Your task to perform on an android device: open app "Google Play Games" Image 0: 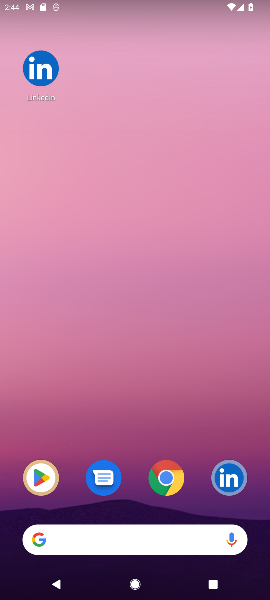
Step 0: drag from (157, 273) to (172, 41)
Your task to perform on an android device: open app "Google Play Games" Image 1: 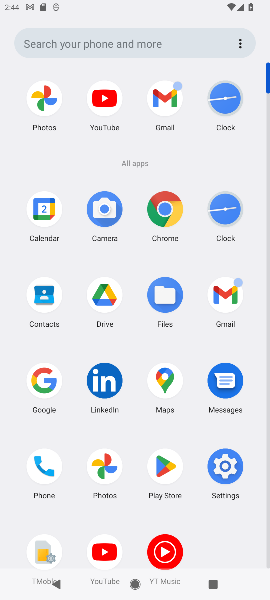
Step 1: drag from (140, 361) to (101, 64)
Your task to perform on an android device: open app "Google Play Games" Image 2: 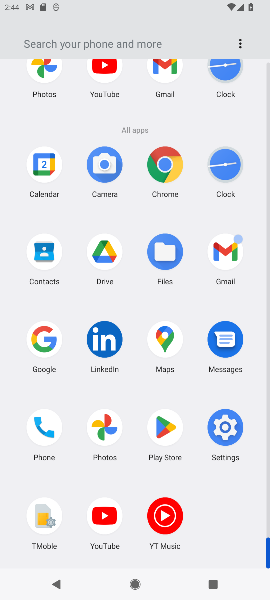
Step 2: drag from (128, 365) to (158, 8)
Your task to perform on an android device: open app "Google Play Games" Image 3: 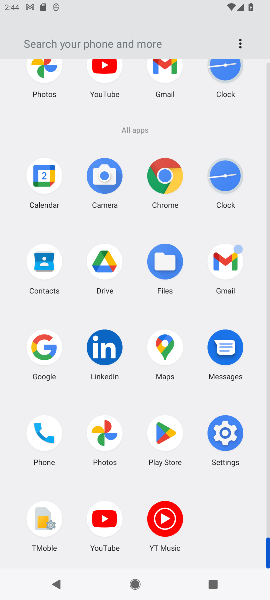
Step 3: drag from (166, 261) to (166, 44)
Your task to perform on an android device: open app "Google Play Games" Image 4: 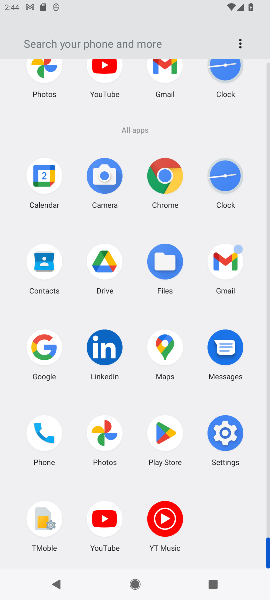
Step 4: click (163, 464)
Your task to perform on an android device: open app "Google Play Games" Image 5: 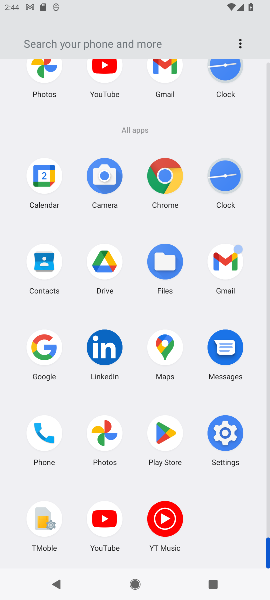
Step 5: click (168, 444)
Your task to perform on an android device: open app "Google Play Games" Image 6: 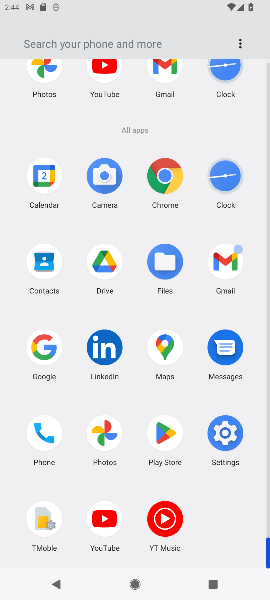
Step 6: click (168, 444)
Your task to perform on an android device: open app "Google Play Games" Image 7: 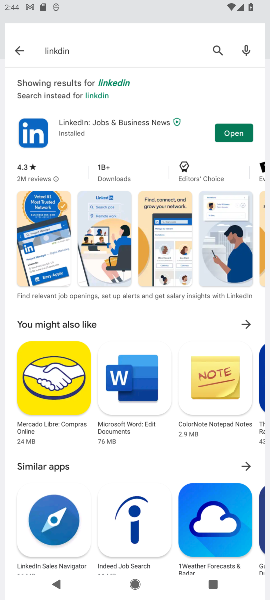
Step 7: click (158, 427)
Your task to perform on an android device: open app "Google Play Games" Image 8: 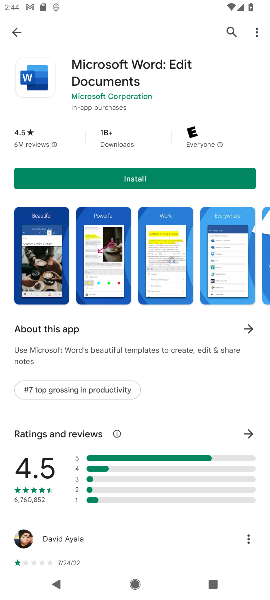
Step 8: click (17, 28)
Your task to perform on an android device: open app "Google Play Games" Image 9: 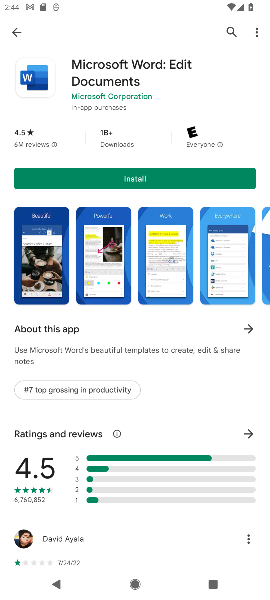
Step 9: click (17, 28)
Your task to perform on an android device: open app "Google Play Games" Image 10: 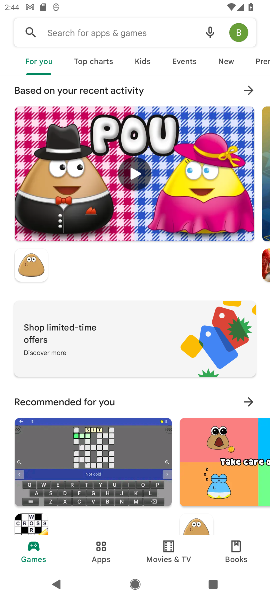
Step 10: press back button
Your task to perform on an android device: open app "Google Play Games" Image 11: 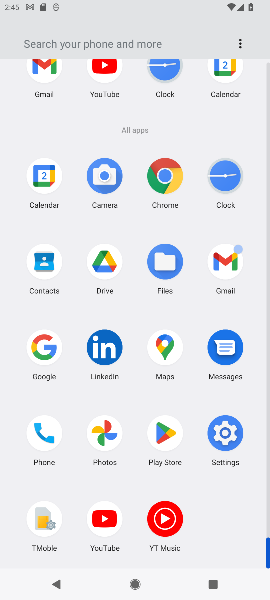
Step 11: click (164, 428)
Your task to perform on an android device: open app "Google Play Games" Image 12: 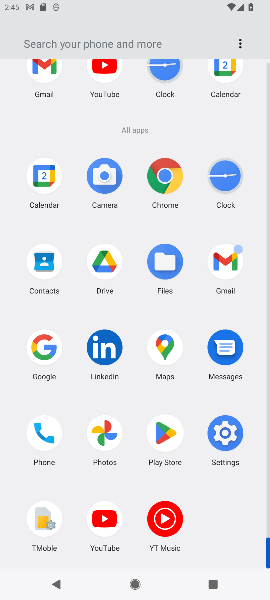
Step 12: click (160, 432)
Your task to perform on an android device: open app "Google Play Games" Image 13: 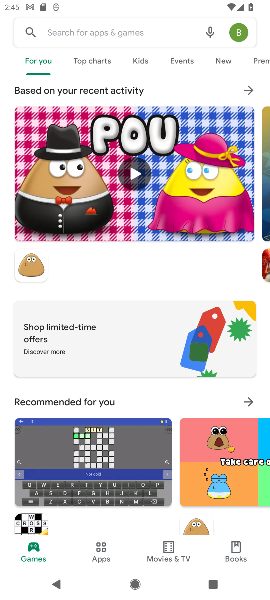
Step 13: click (119, 32)
Your task to perform on an android device: open app "Google Play Games" Image 14: 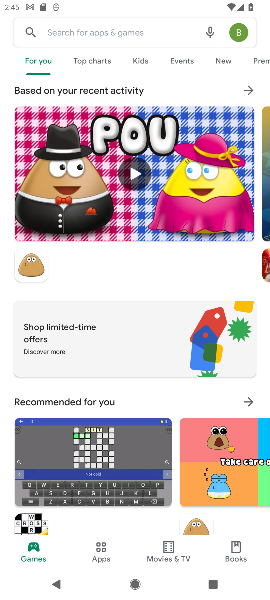
Step 14: click (119, 32)
Your task to perform on an android device: open app "Google Play Games" Image 15: 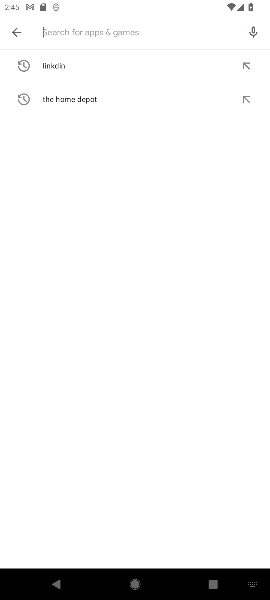
Step 15: type "Google Play Games"
Your task to perform on an android device: open app "Google Play Games" Image 16: 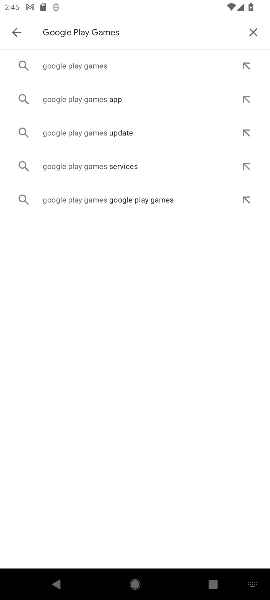
Step 16: click (71, 61)
Your task to perform on an android device: open app "Google Play Games" Image 17: 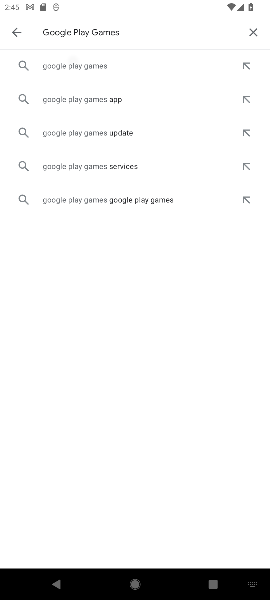
Step 17: click (72, 61)
Your task to perform on an android device: open app "Google Play Games" Image 18: 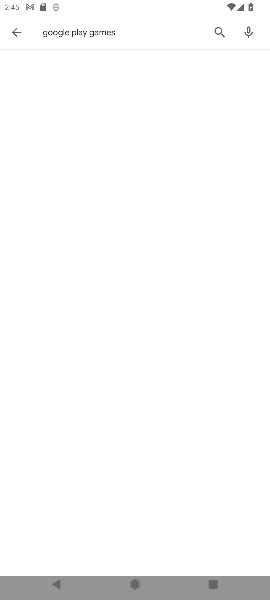
Step 18: click (79, 62)
Your task to perform on an android device: open app "Google Play Games" Image 19: 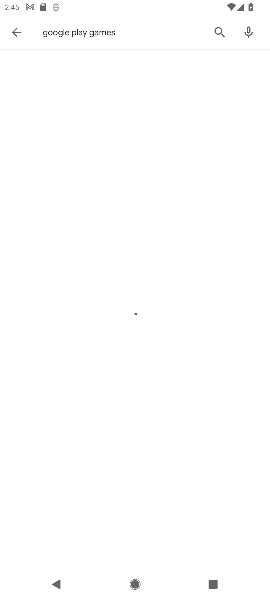
Step 19: click (79, 65)
Your task to perform on an android device: open app "Google Play Games" Image 20: 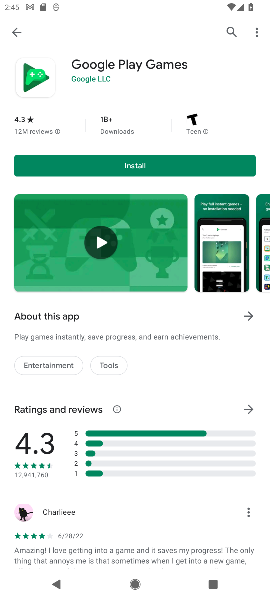
Step 20: click (136, 170)
Your task to perform on an android device: open app "Google Play Games" Image 21: 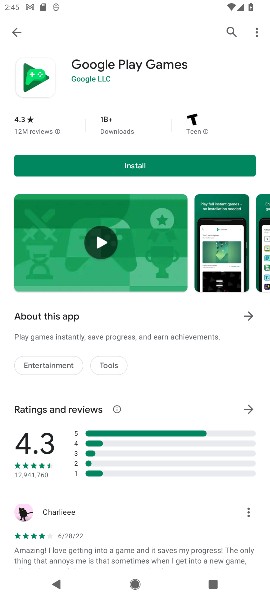
Step 21: click (137, 169)
Your task to perform on an android device: open app "Google Play Games" Image 22: 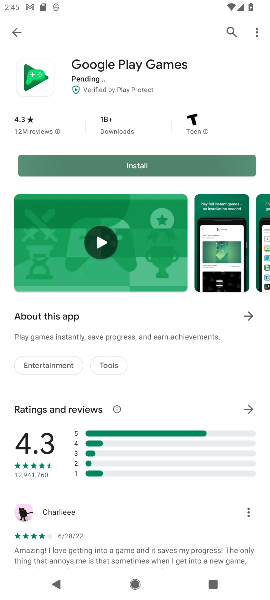
Step 22: click (137, 169)
Your task to perform on an android device: open app "Google Play Games" Image 23: 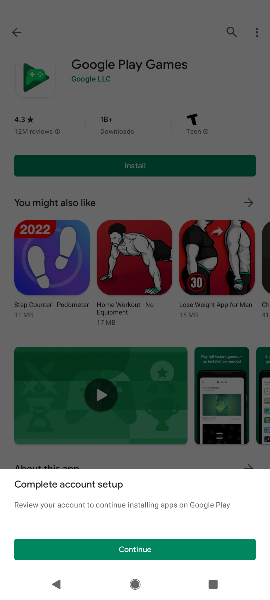
Step 23: click (153, 557)
Your task to perform on an android device: open app "Google Play Games" Image 24: 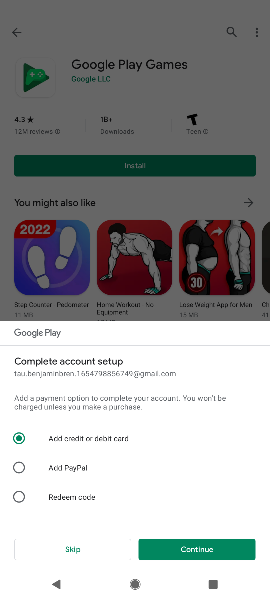
Step 24: click (79, 543)
Your task to perform on an android device: open app "Google Play Games" Image 25: 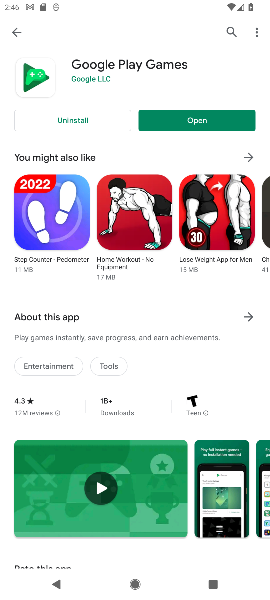
Step 25: click (193, 121)
Your task to perform on an android device: open app "Google Play Games" Image 26: 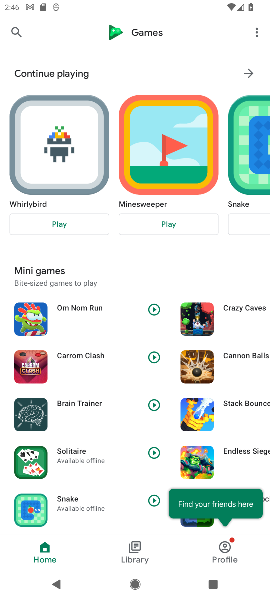
Step 26: task complete